Your task to perform on an android device: Add "asus rog" to the cart on target Image 0: 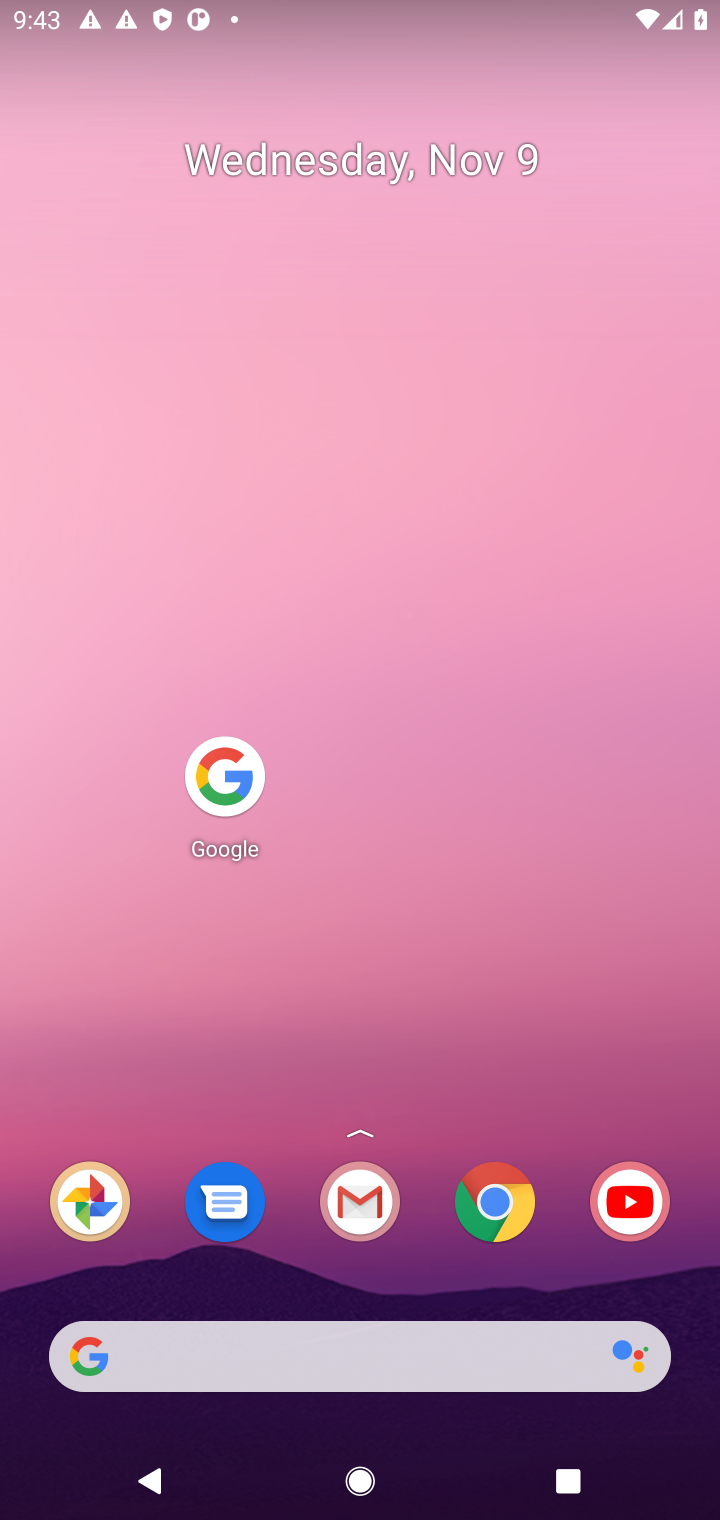
Step 0: click (223, 776)
Your task to perform on an android device: Add "asus rog" to the cart on target Image 1: 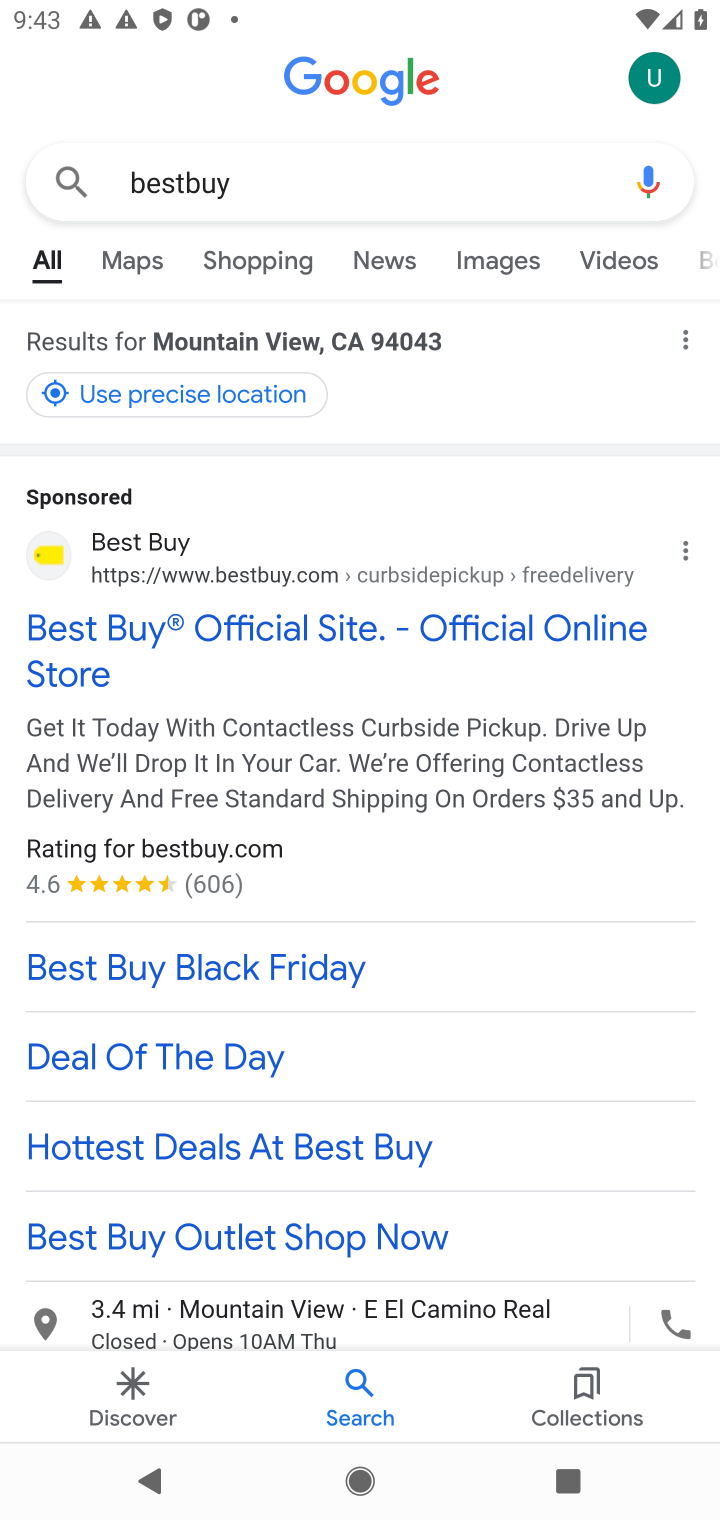
Step 1: click (314, 198)
Your task to perform on an android device: Add "asus rog" to the cart on target Image 2: 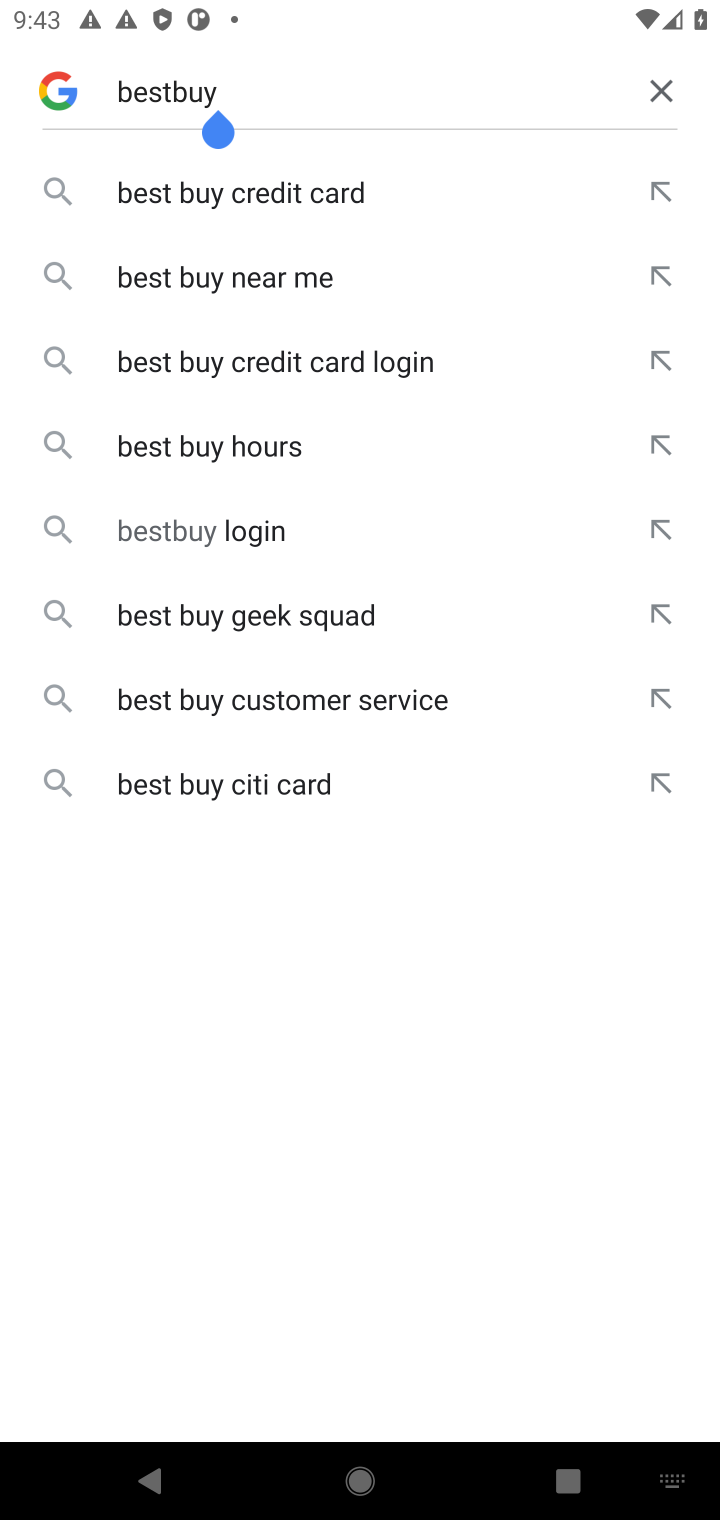
Step 2: click (643, 77)
Your task to perform on an android device: Add "asus rog" to the cart on target Image 3: 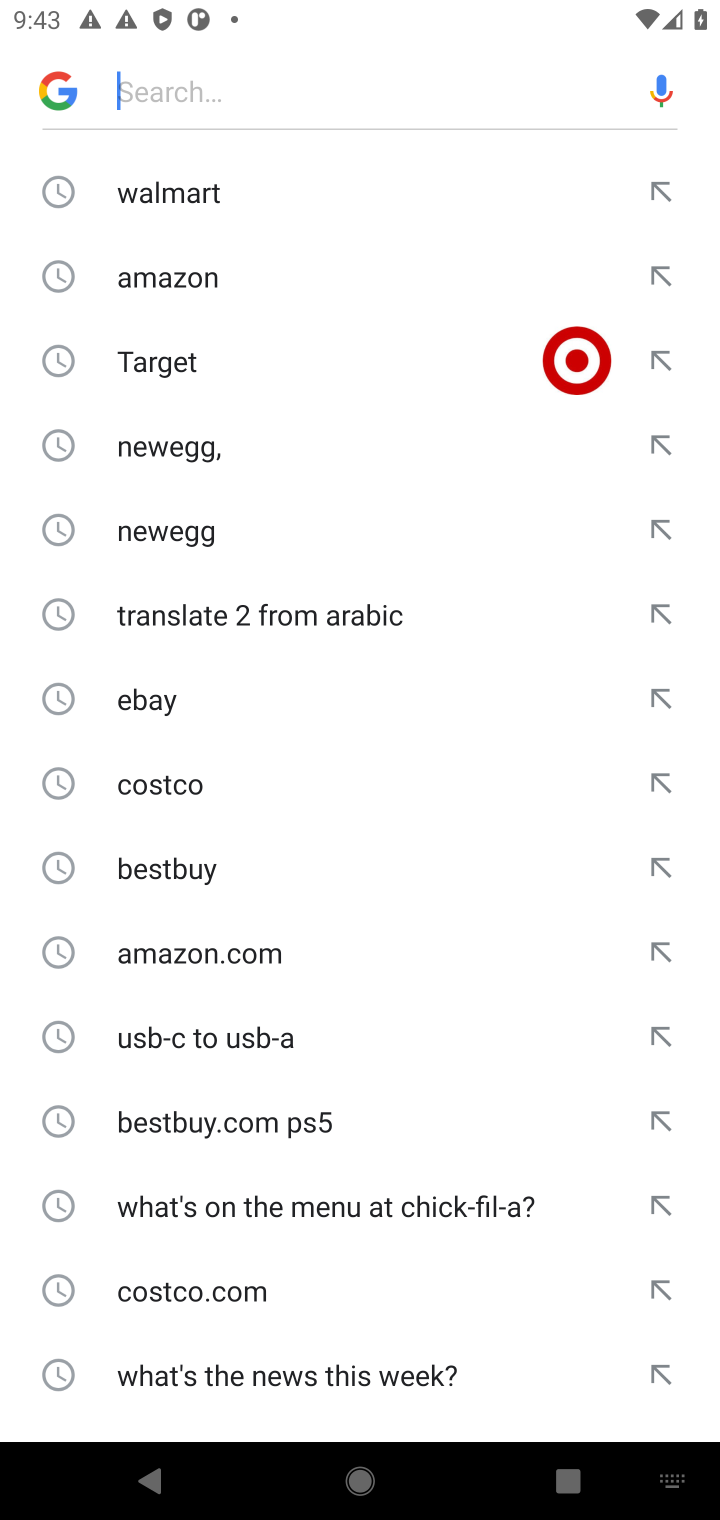
Step 3: click (139, 354)
Your task to perform on an android device: Add "asus rog" to the cart on target Image 4: 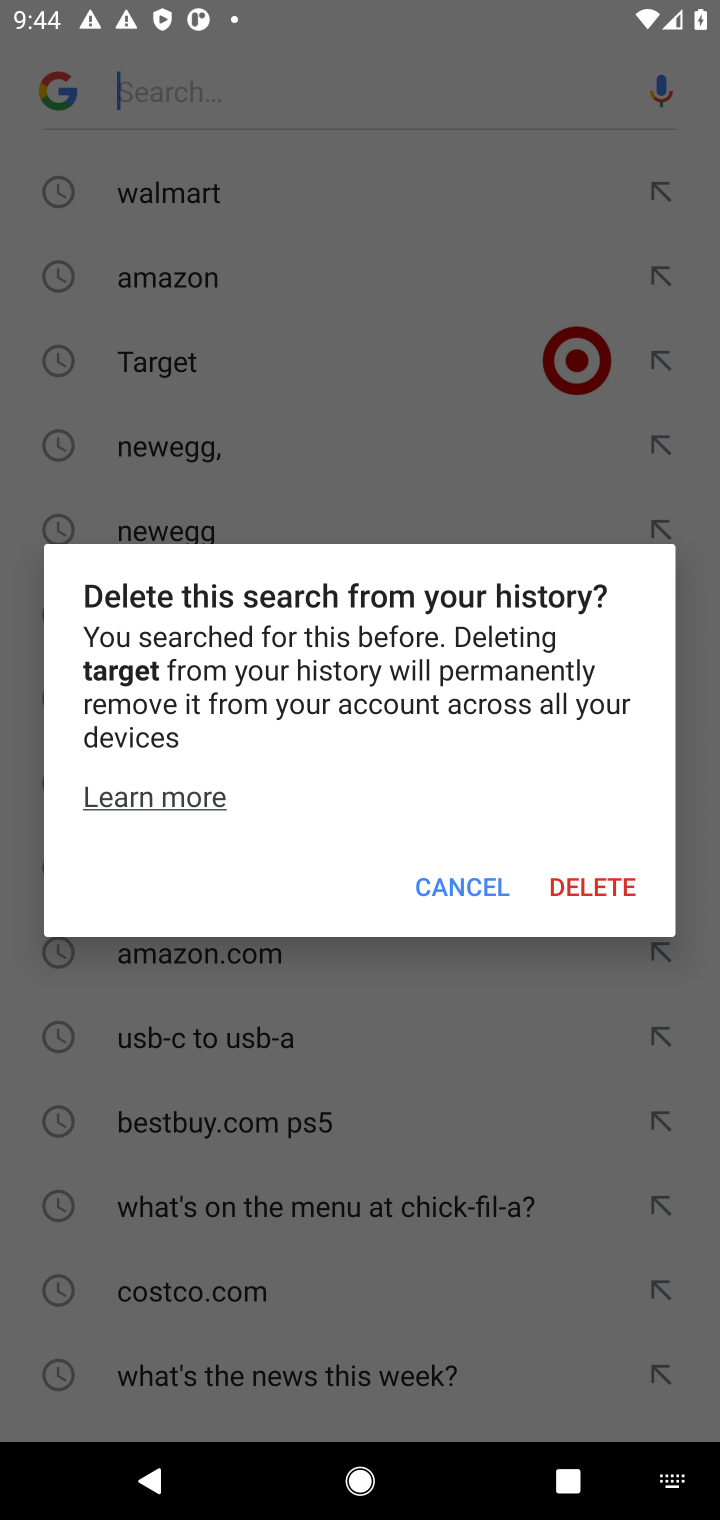
Step 4: click (433, 886)
Your task to perform on an android device: Add "asus rog" to the cart on target Image 5: 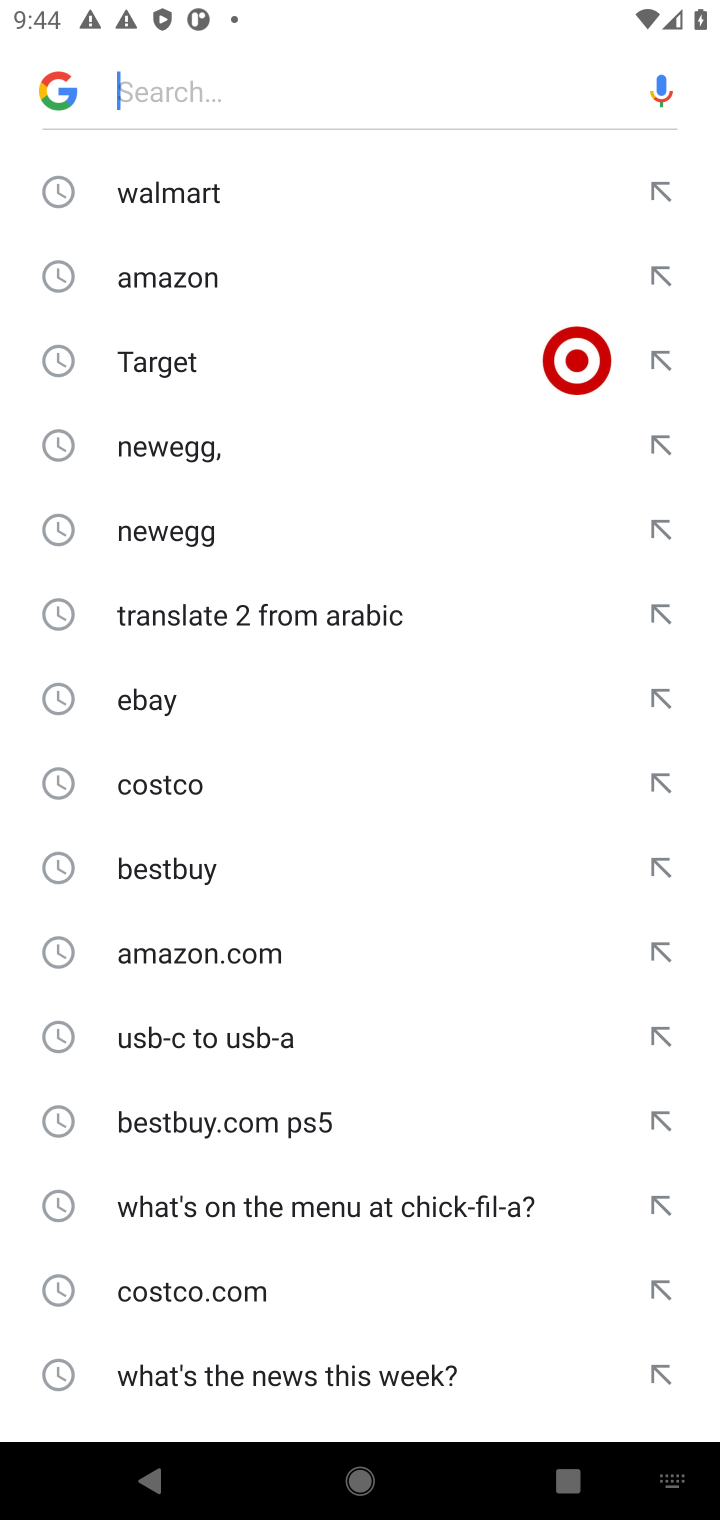
Step 5: click (132, 367)
Your task to perform on an android device: Add "asus rog" to the cart on target Image 6: 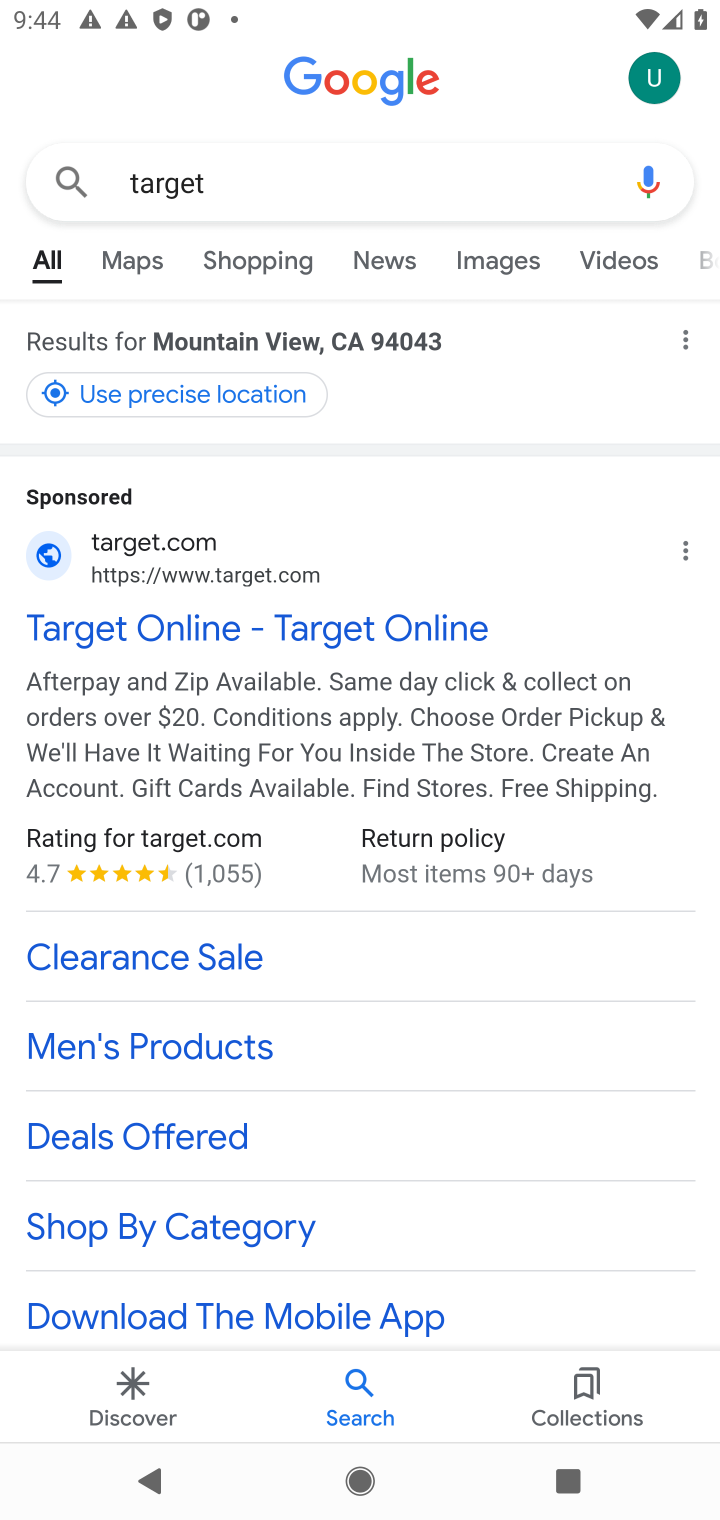
Step 6: click (194, 624)
Your task to perform on an android device: Add "asus rog" to the cart on target Image 7: 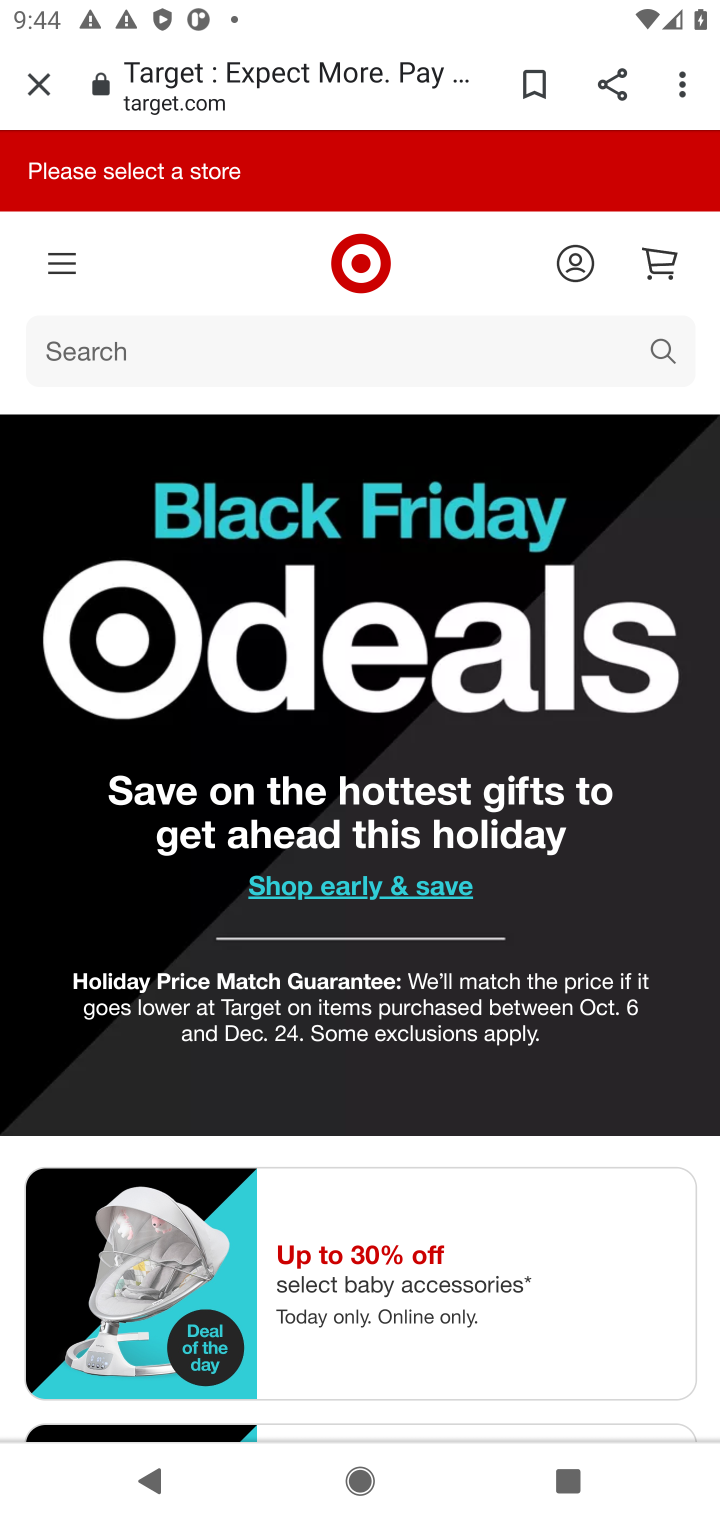
Step 7: click (215, 340)
Your task to perform on an android device: Add "asus rog" to the cart on target Image 8: 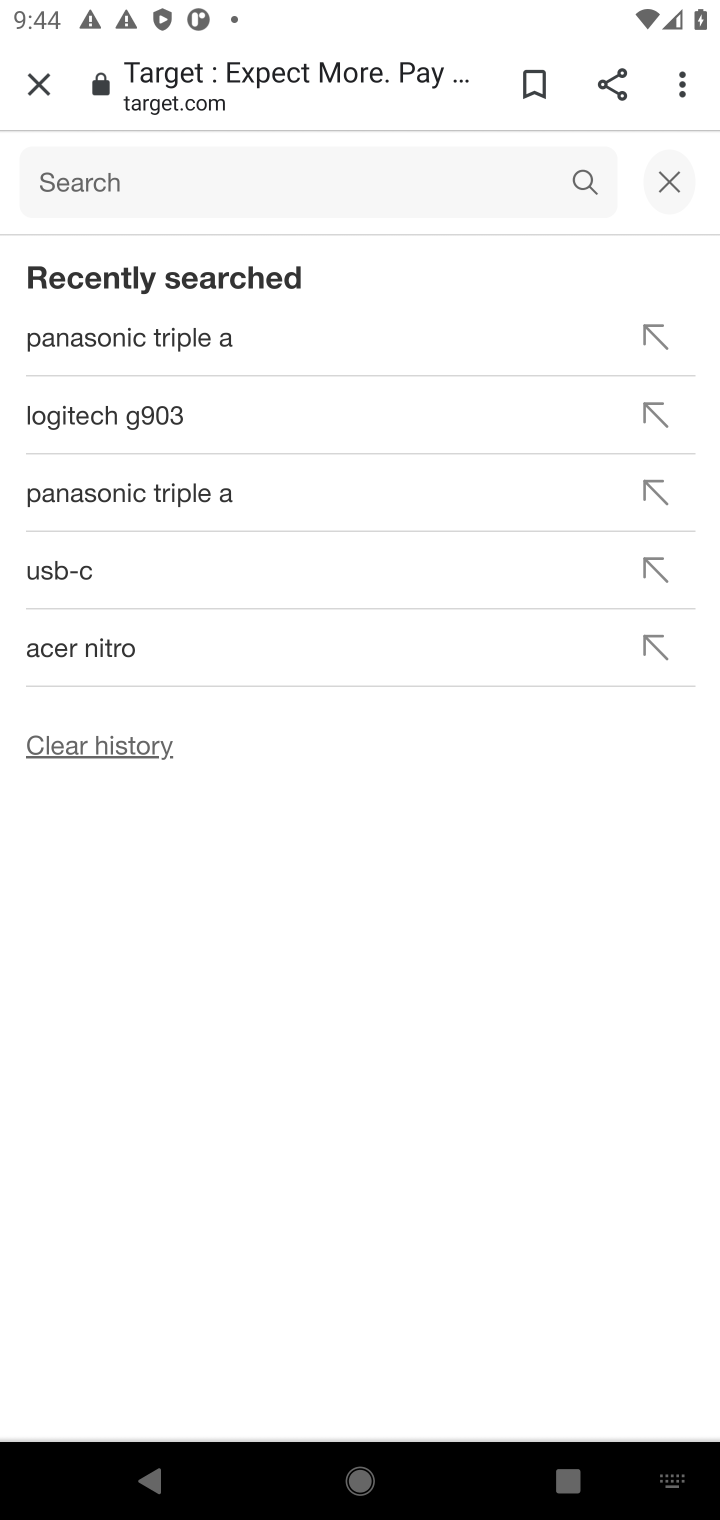
Step 8: type "asus rog"
Your task to perform on an android device: Add "asus rog" to the cart on target Image 9: 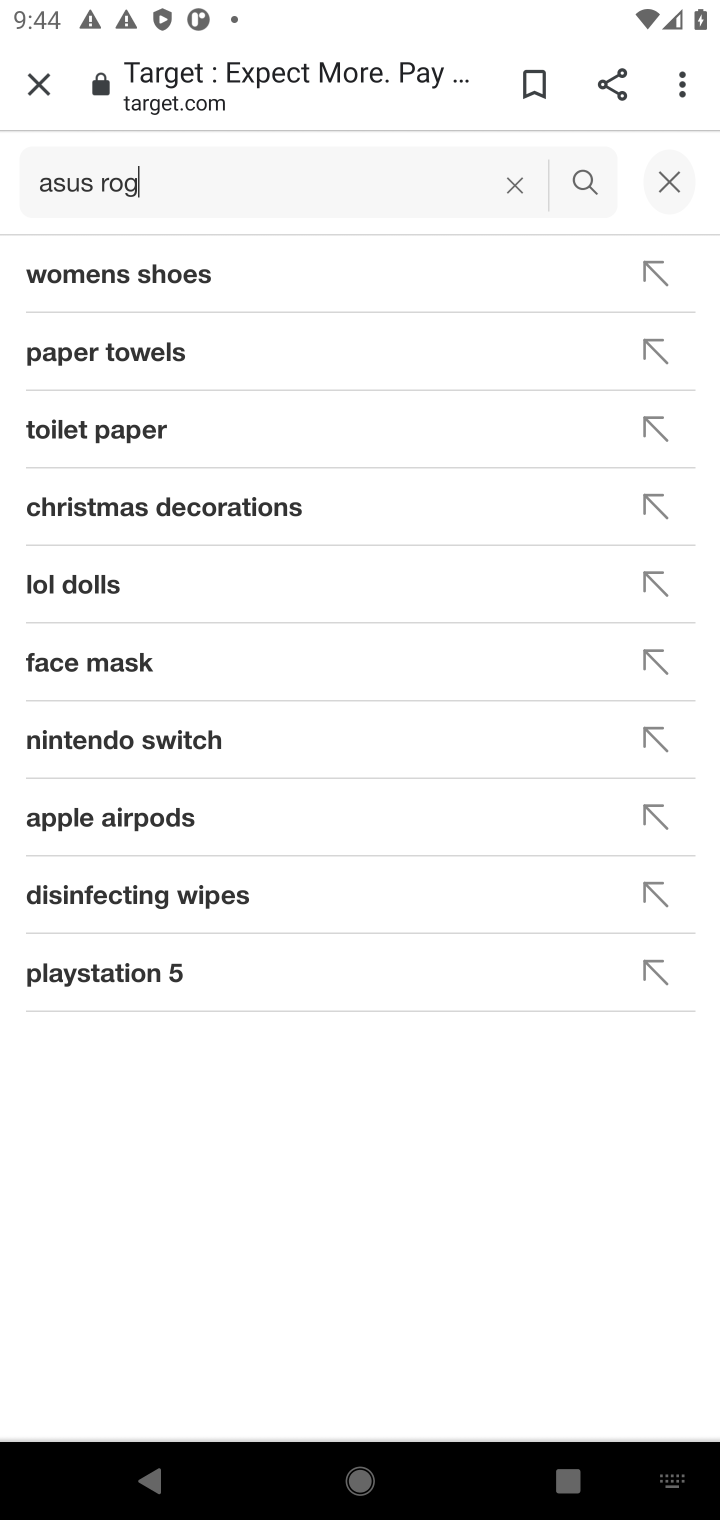
Step 9: press enter
Your task to perform on an android device: Add "asus rog" to the cart on target Image 10: 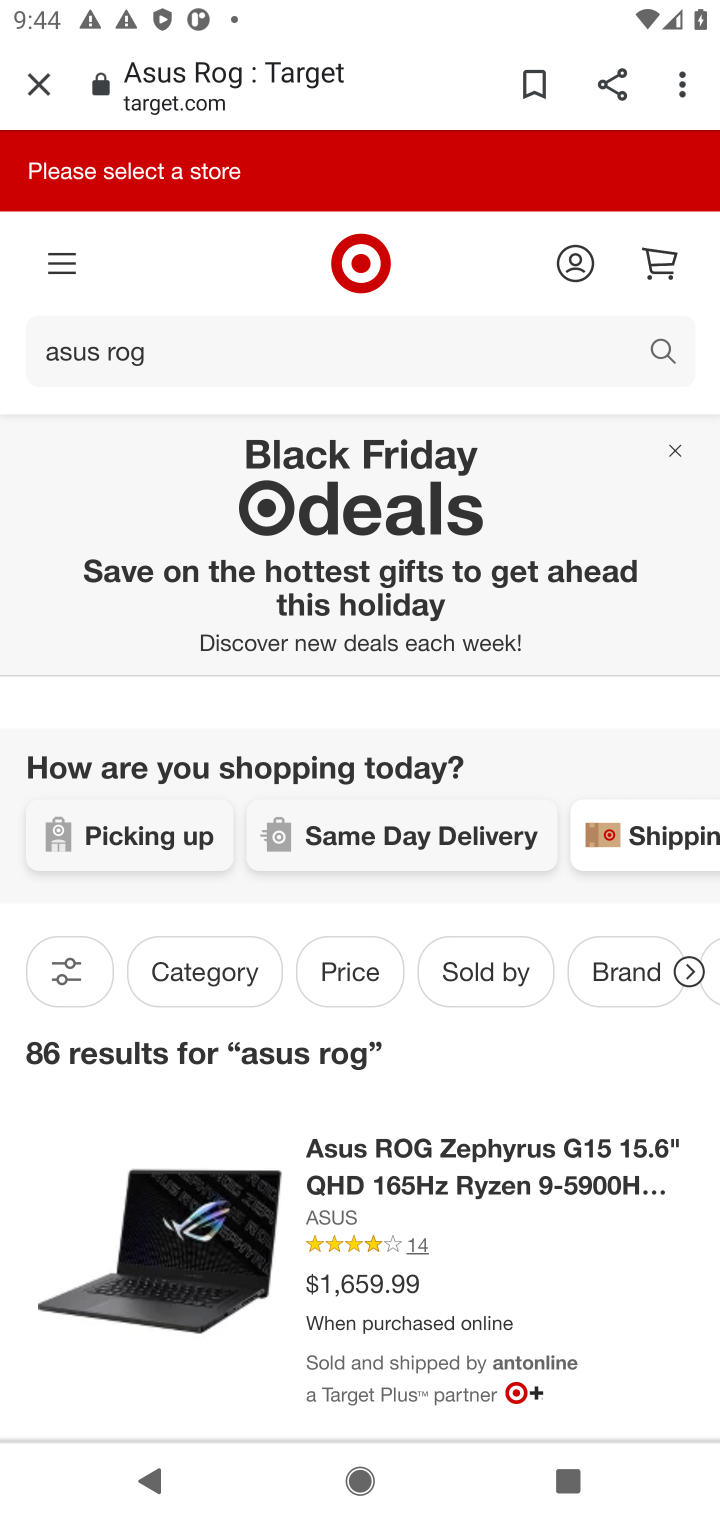
Step 10: drag from (435, 1157) to (475, 673)
Your task to perform on an android device: Add "asus rog" to the cart on target Image 11: 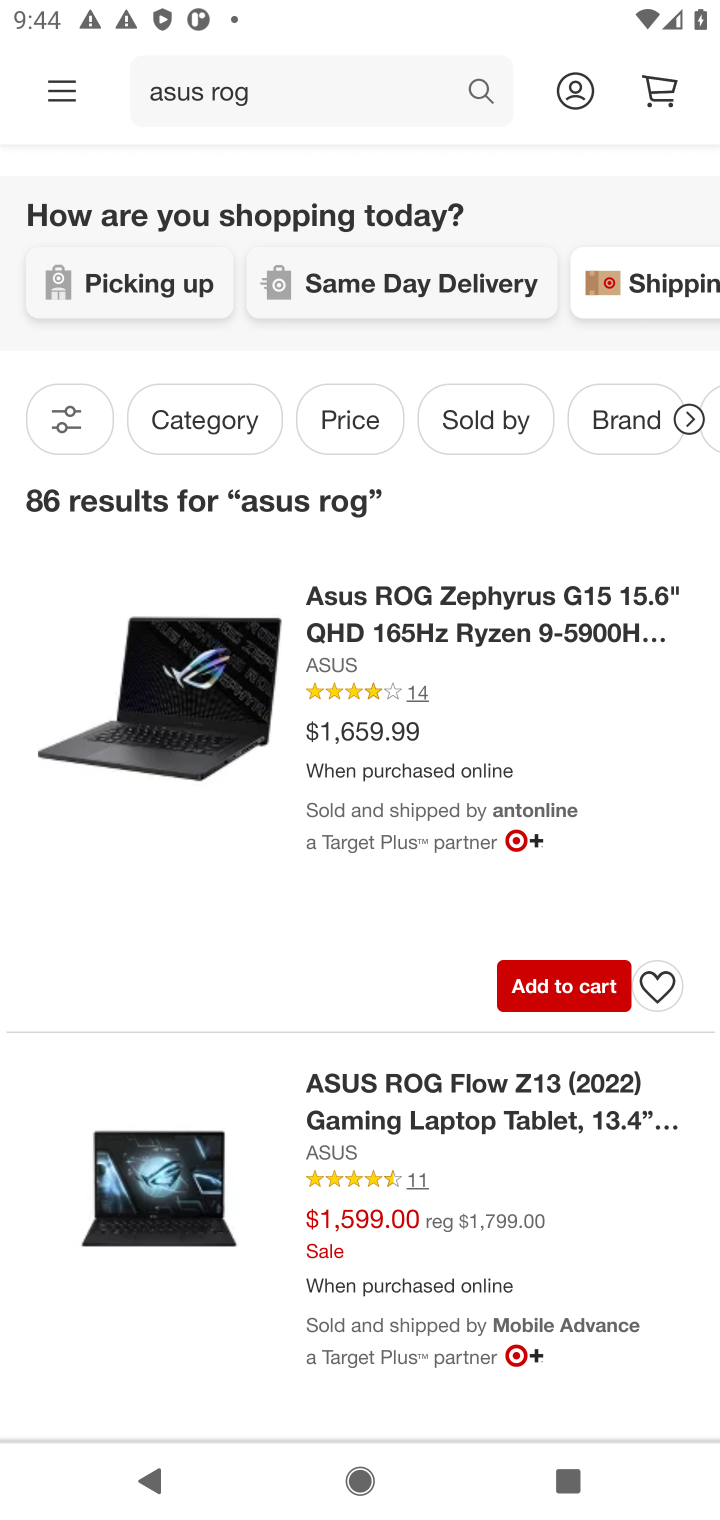
Step 11: click (555, 982)
Your task to perform on an android device: Add "asus rog" to the cart on target Image 12: 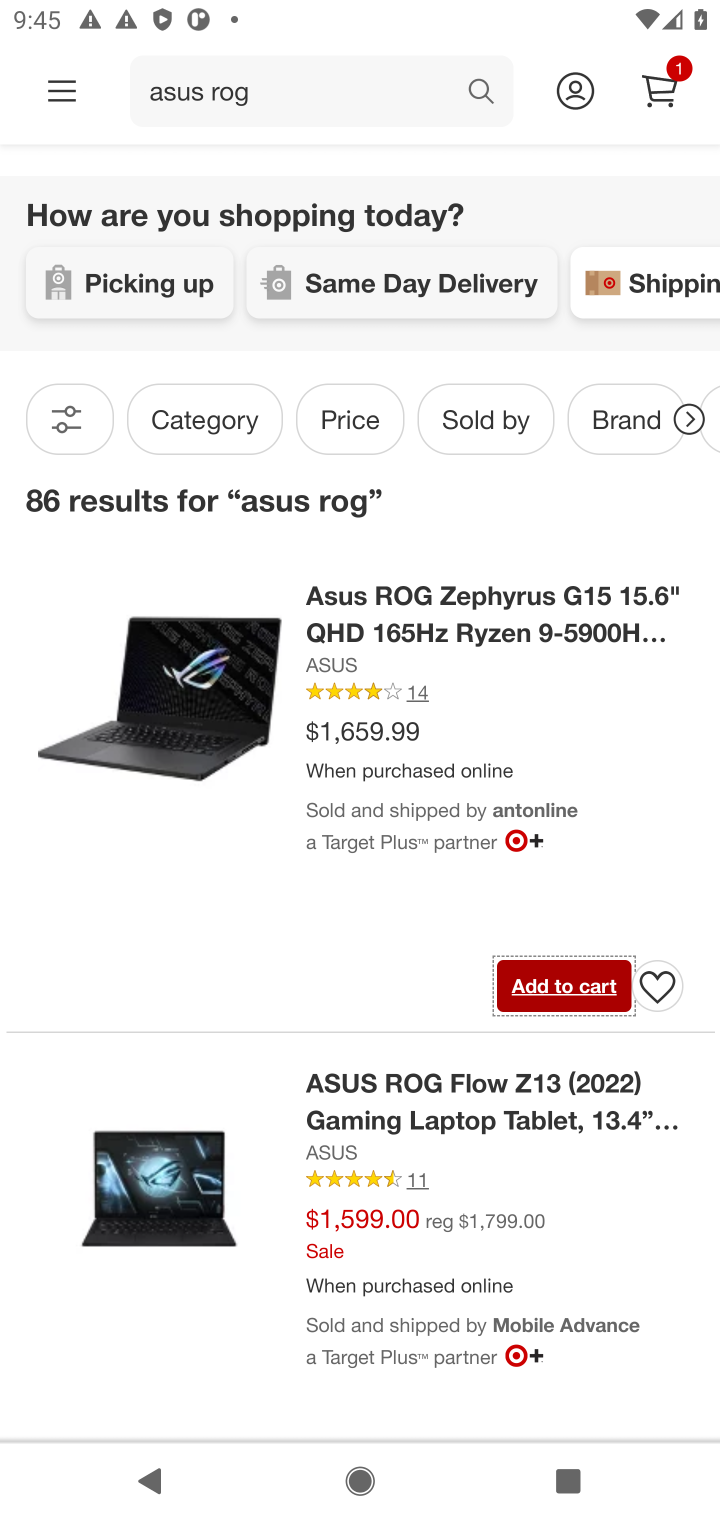
Step 12: click (667, 82)
Your task to perform on an android device: Add "asus rog" to the cart on target Image 13: 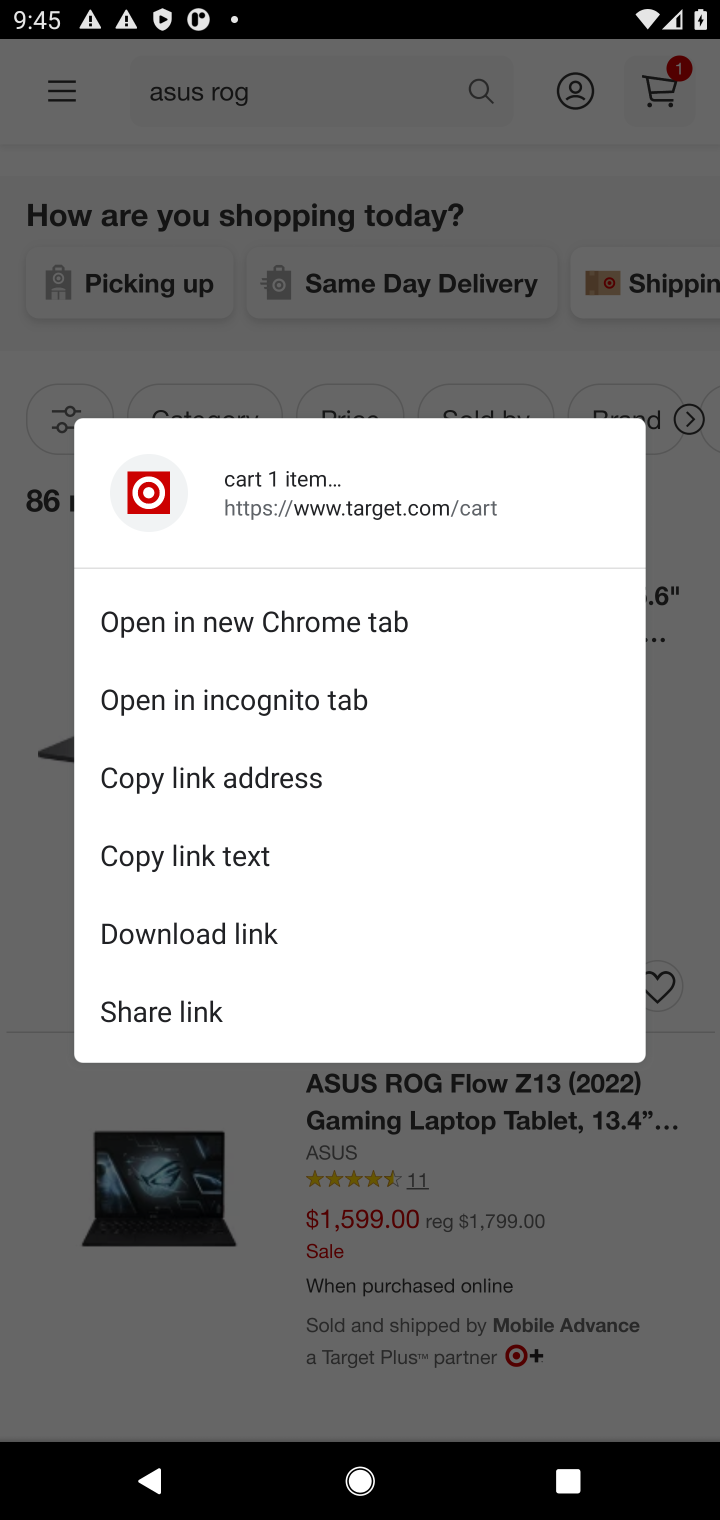
Step 13: click (685, 66)
Your task to perform on an android device: Add "asus rog" to the cart on target Image 14: 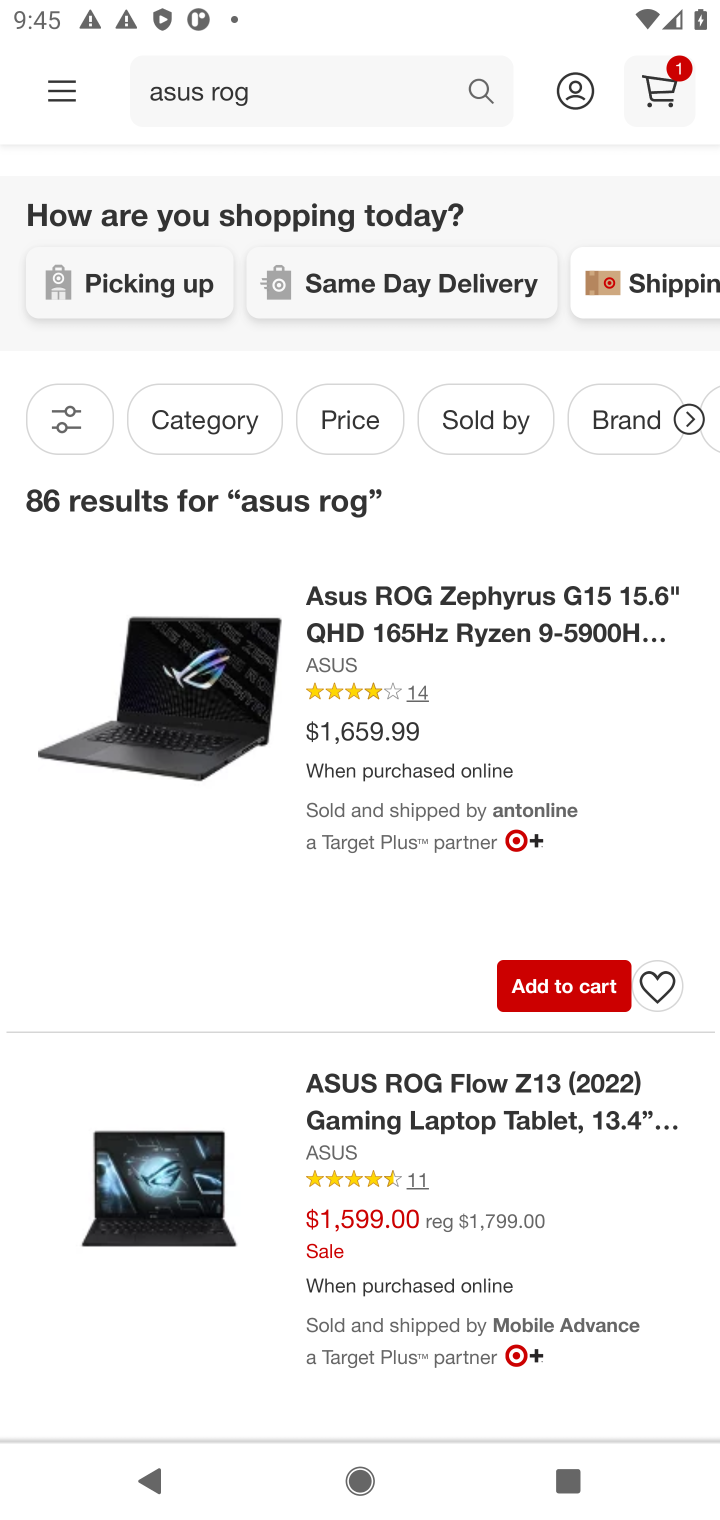
Step 14: click (655, 81)
Your task to perform on an android device: Add "asus rog" to the cart on target Image 15: 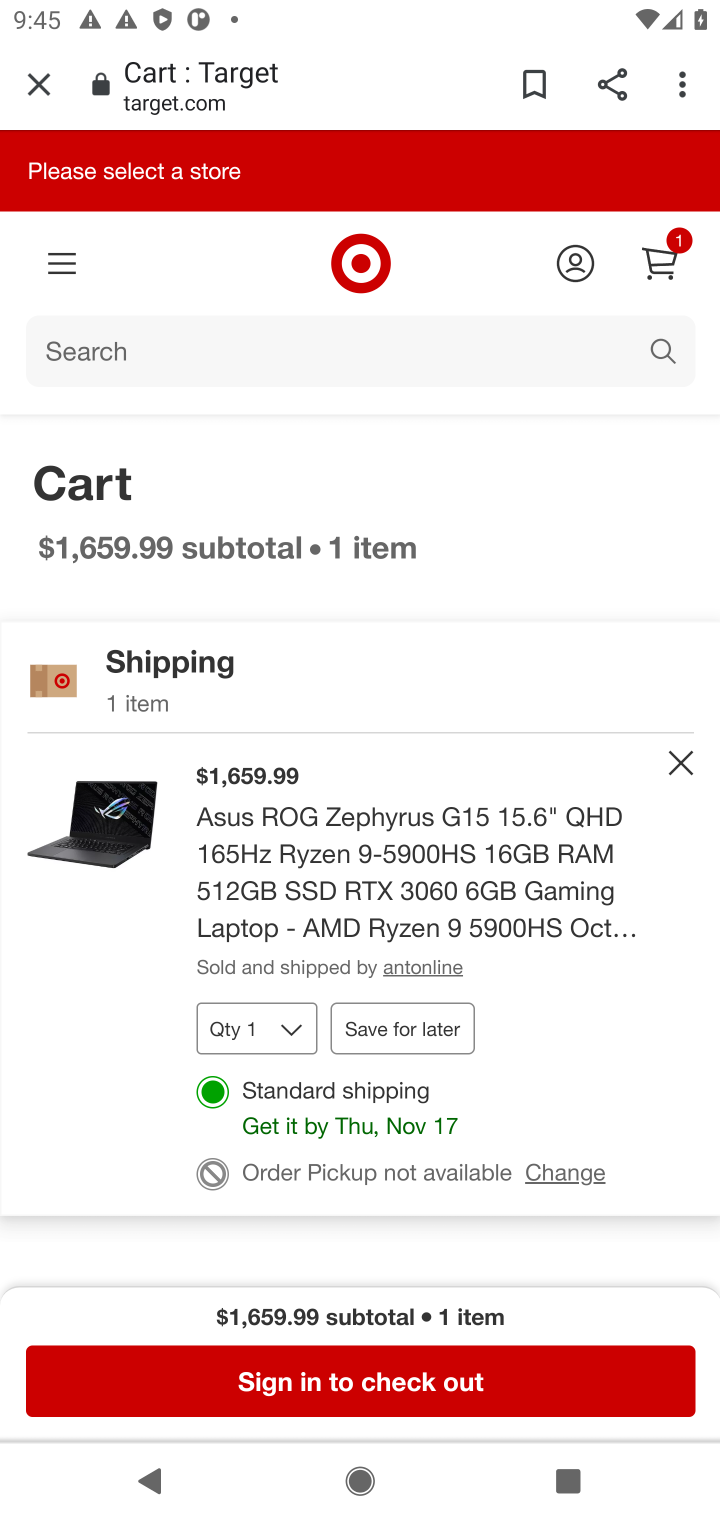
Step 15: task complete